Your task to perform on an android device: Open Google Maps Image 0: 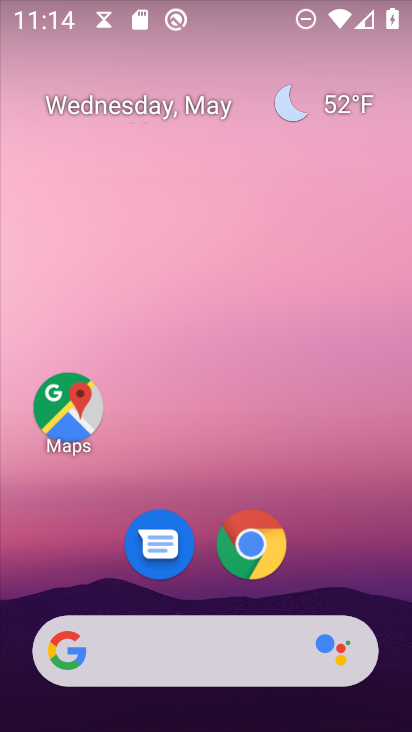
Step 0: click (77, 417)
Your task to perform on an android device: Open Google Maps Image 1: 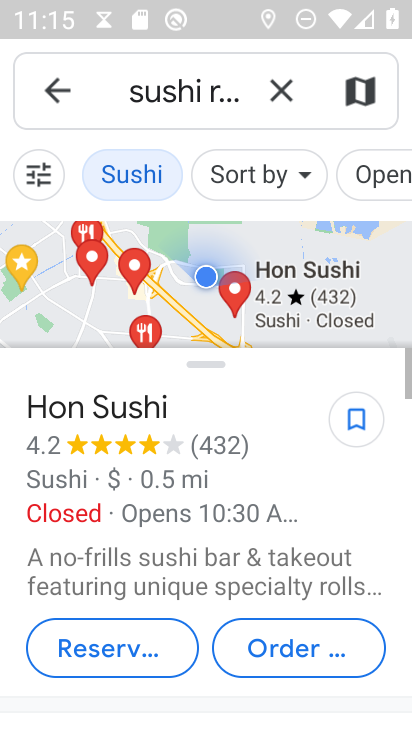
Step 1: task complete